Your task to perform on an android device: see tabs open on other devices in the chrome app Image 0: 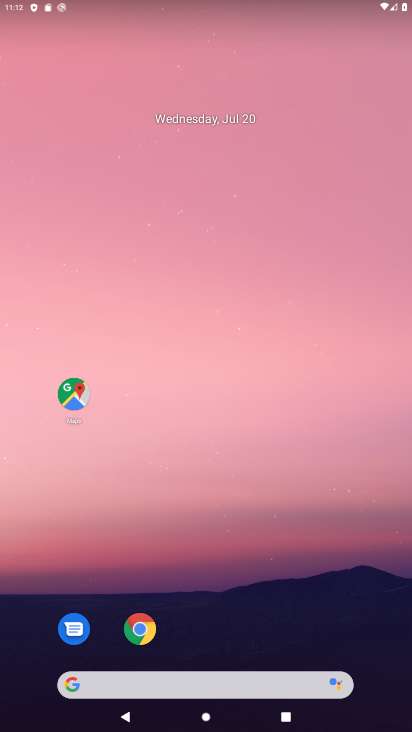
Step 0: drag from (245, 672) to (313, 6)
Your task to perform on an android device: see tabs open on other devices in the chrome app Image 1: 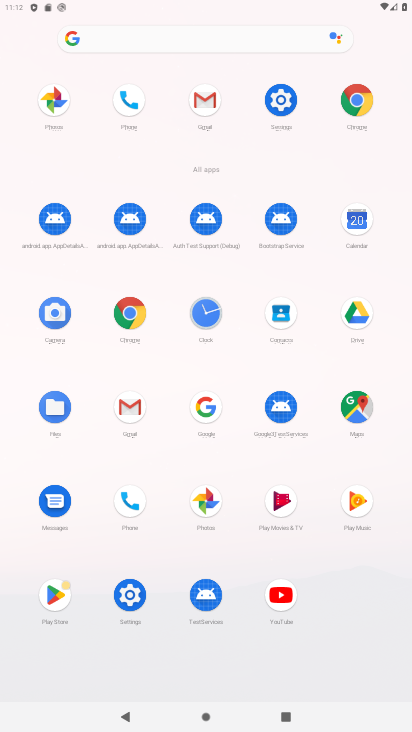
Step 1: click (125, 309)
Your task to perform on an android device: see tabs open on other devices in the chrome app Image 2: 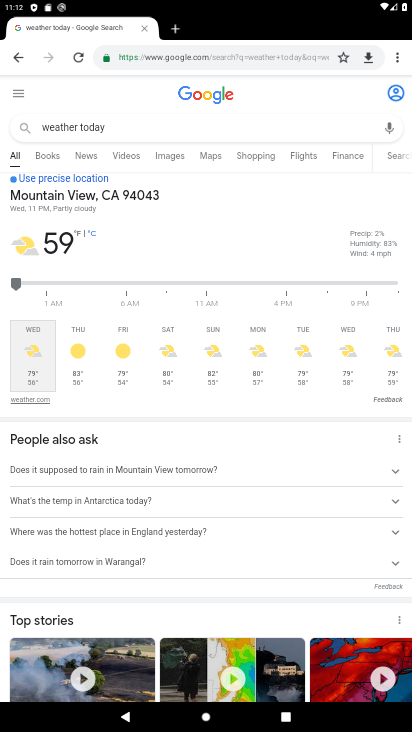
Step 2: task complete